Your task to perform on an android device: open app "NewsBreak: Local News & Alerts" (install if not already installed), go to login, and select forgot password Image 0: 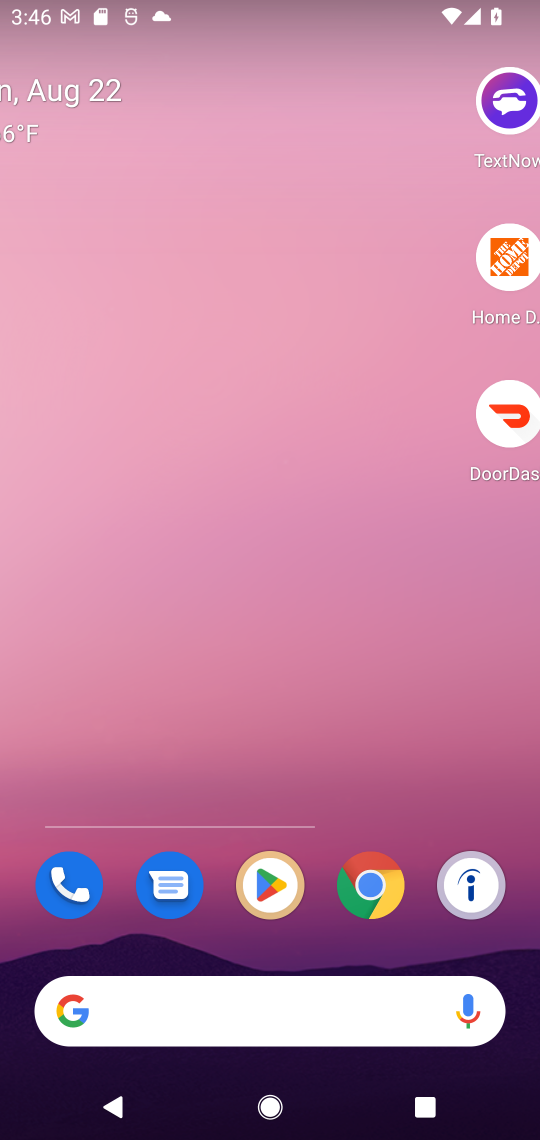
Step 0: press home button
Your task to perform on an android device: open app "NewsBreak: Local News & Alerts" (install if not already installed), go to login, and select forgot password Image 1: 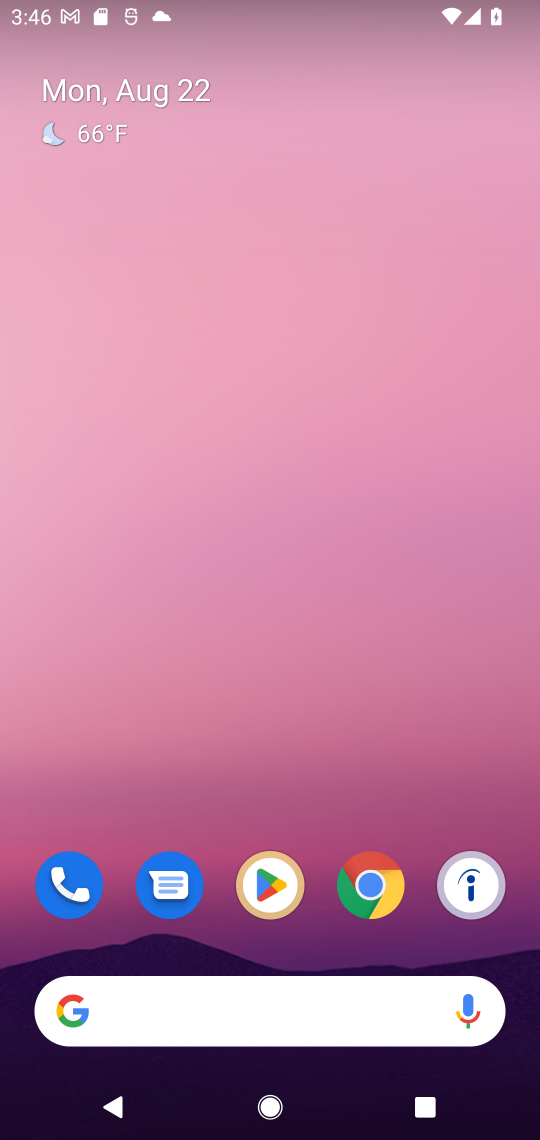
Step 1: click (268, 868)
Your task to perform on an android device: open app "NewsBreak: Local News & Alerts" (install if not already installed), go to login, and select forgot password Image 2: 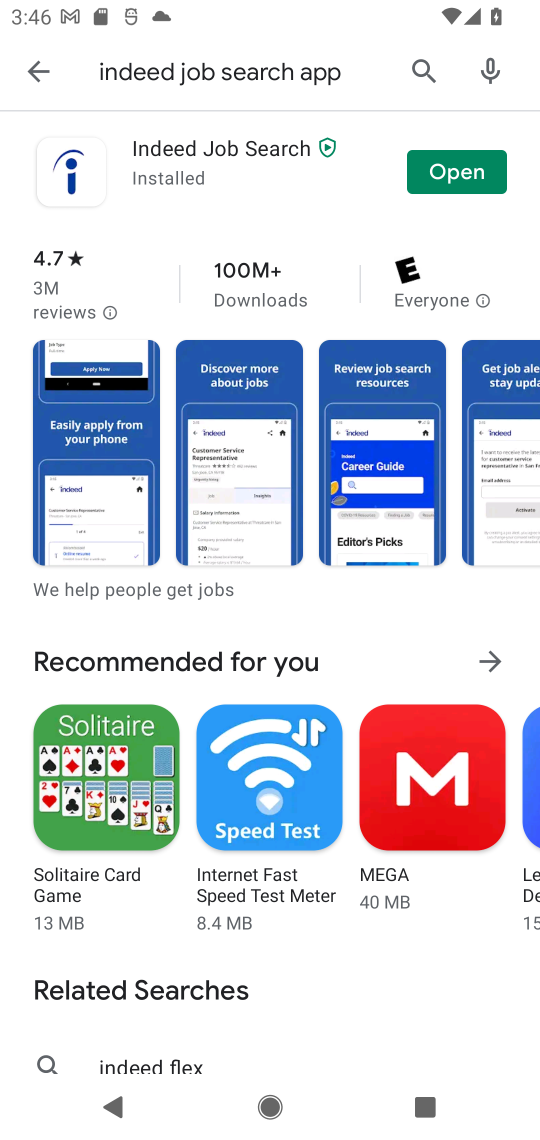
Step 2: click (422, 60)
Your task to perform on an android device: open app "NewsBreak: Local News & Alerts" (install if not already installed), go to login, and select forgot password Image 3: 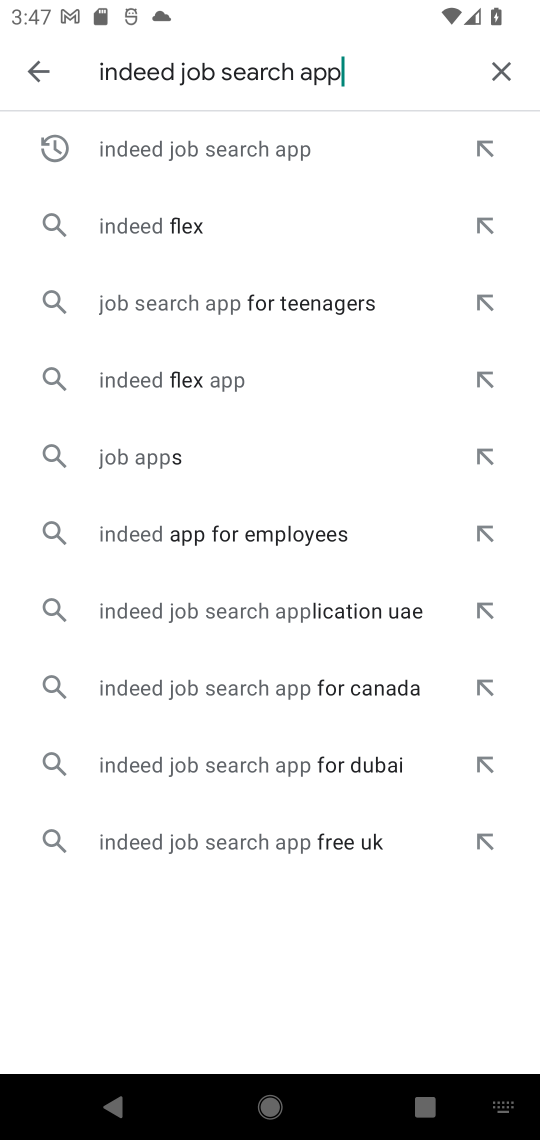
Step 3: click (492, 75)
Your task to perform on an android device: open app "NewsBreak: Local News & Alerts" (install if not already installed), go to login, and select forgot password Image 4: 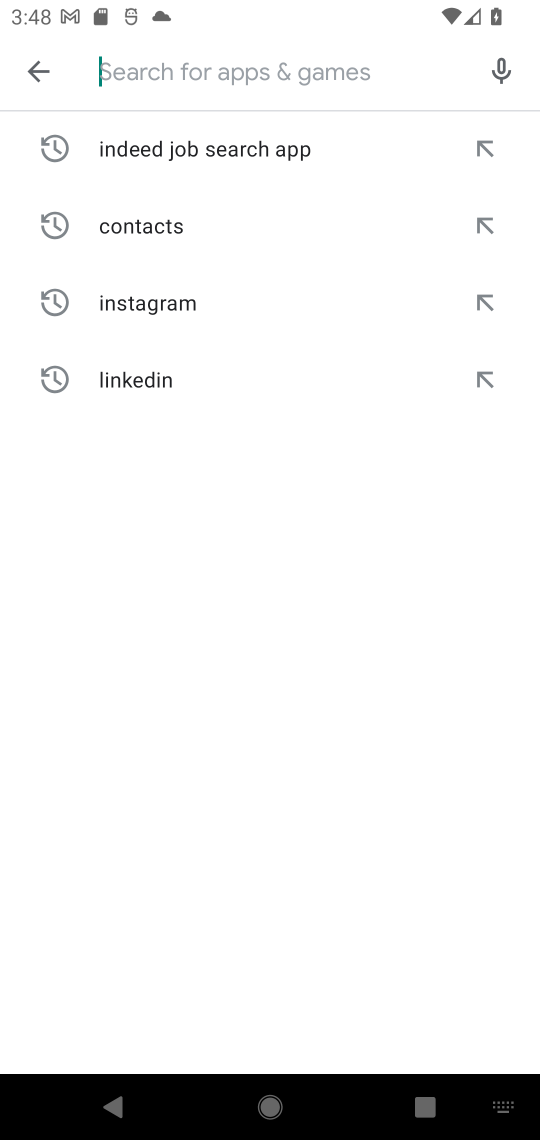
Step 4: type "NewsBreak: Local News & Alerts"
Your task to perform on an android device: open app "NewsBreak: Local News & Alerts" (install if not already installed), go to login, and select forgot password Image 5: 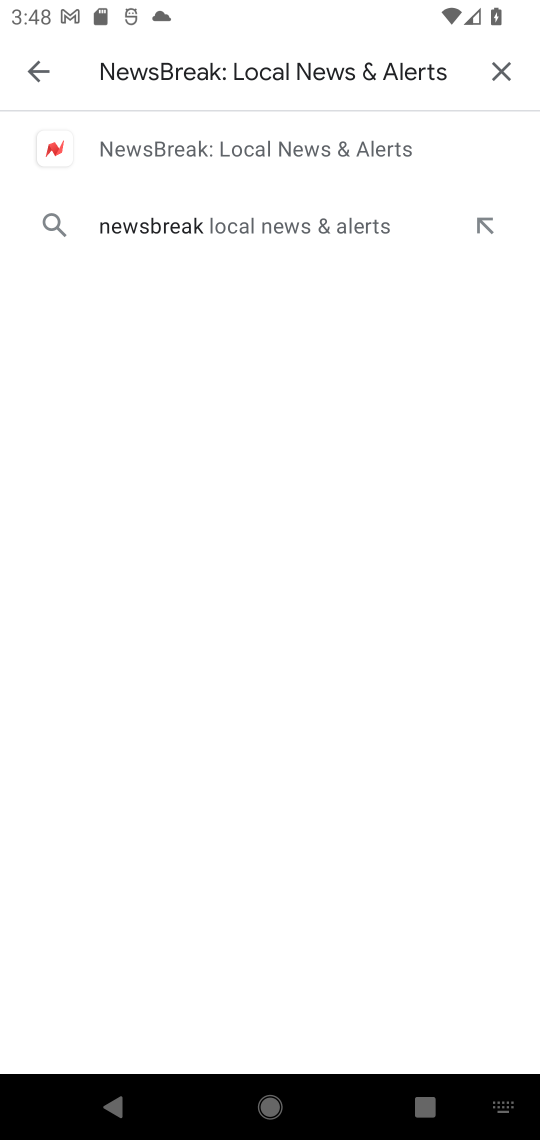
Step 5: click (290, 147)
Your task to perform on an android device: open app "NewsBreak: Local News & Alerts" (install if not already installed), go to login, and select forgot password Image 6: 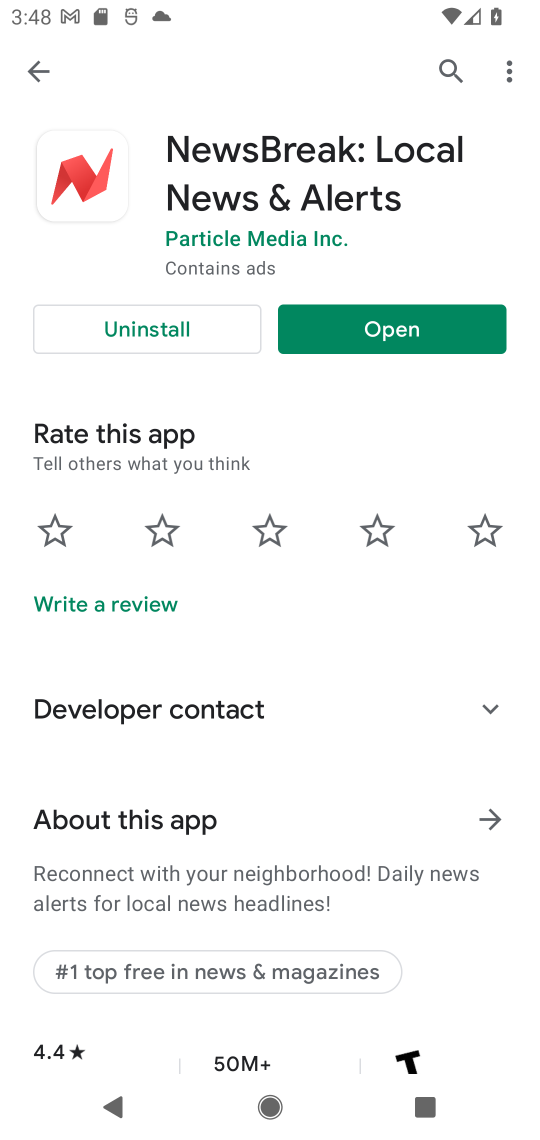
Step 6: click (395, 333)
Your task to perform on an android device: open app "NewsBreak: Local News & Alerts" (install if not already installed), go to login, and select forgot password Image 7: 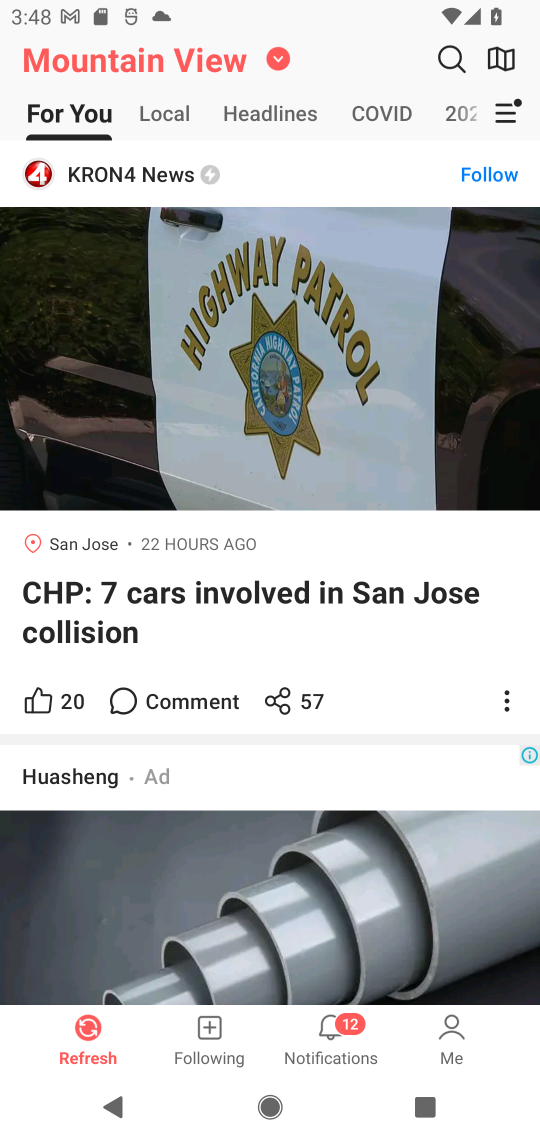
Step 7: task complete